Your task to perform on an android device: Open Maps and search for coffee Image 0: 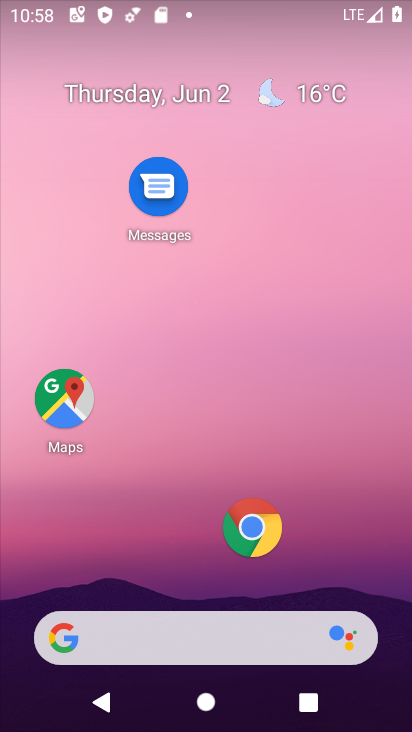
Step 0: click (68, 398)
Your task to perform on an android device: Open Maps and search for coffee Image 1: 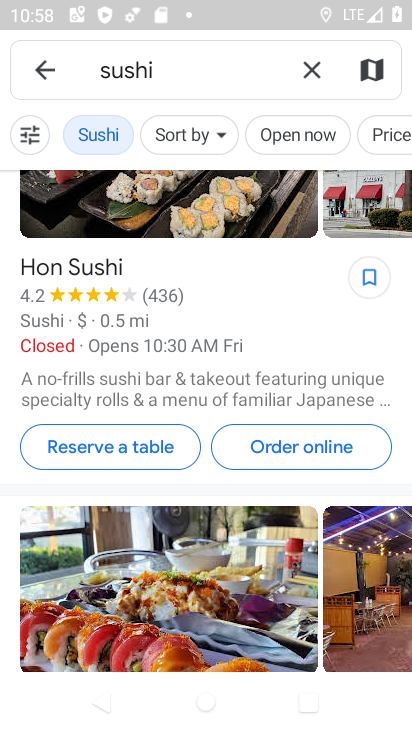
Step 1: click (310, 66)
Your task to perform on an android device: Open Maps and search for coffee Image 2: 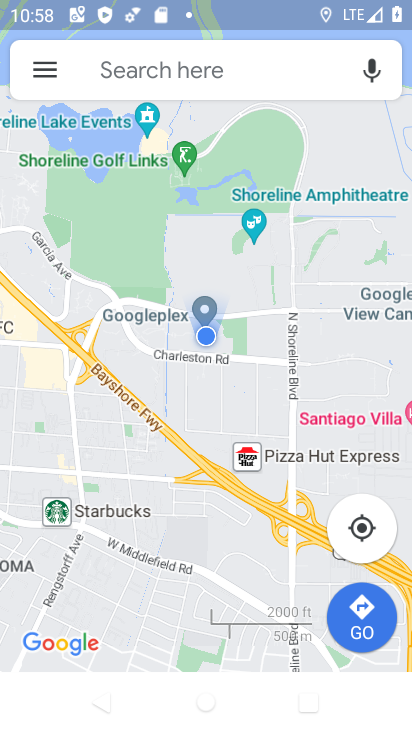
Step 2: click (155, 66)
Your task to perform on an android device: Open Maps and search for coffee Image 3: 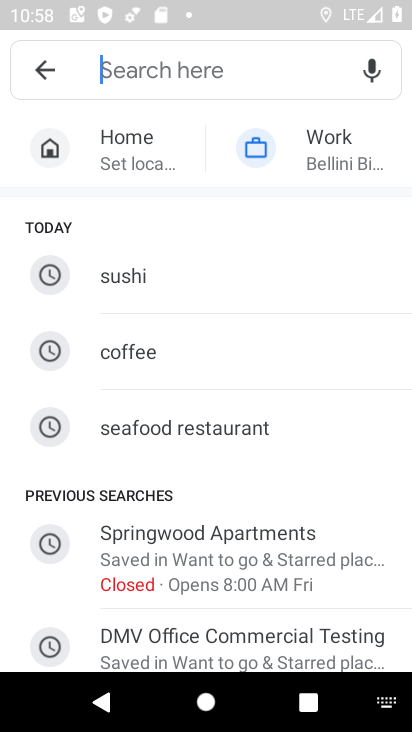
Step 3: click (173, 348)
Your task to perform on an android device: Open Maps and search for coffee Image 4: 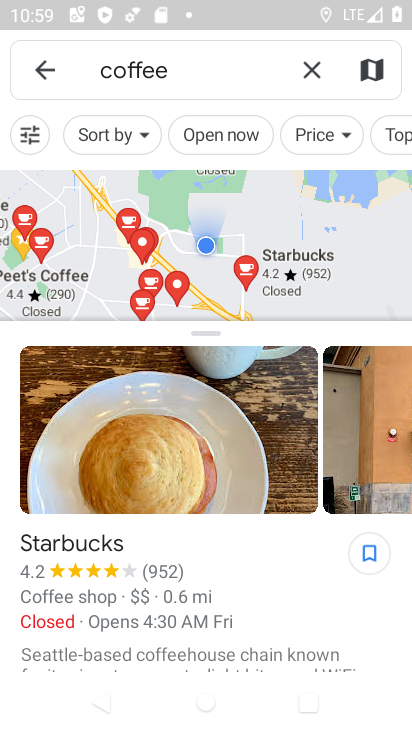
Step 4: task complete